Your task to perform on an android device: turn on priority inbox in the gmail app Image 0: 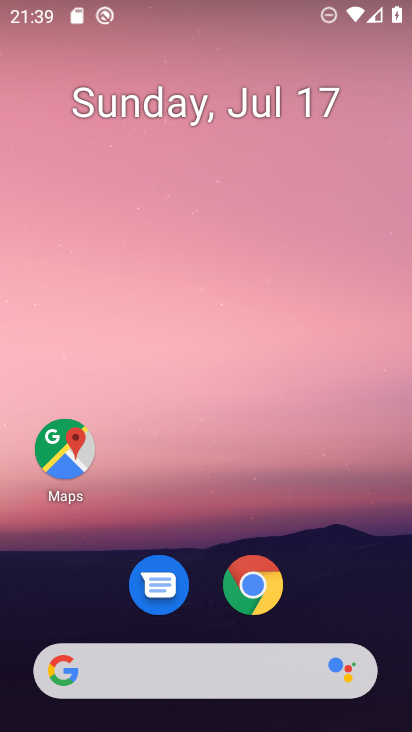
Step 0: press home button
Your task to perform on an android device: turn on priority inbox in the gmail app Image 1: 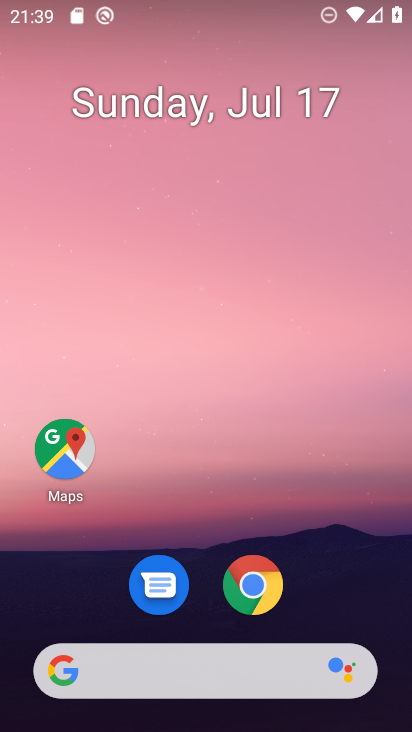
Step 1: drag from (223, 670) to (305, 85)
Your task to perform on an android device: turn on priority inbox in the gmail app Image 2: 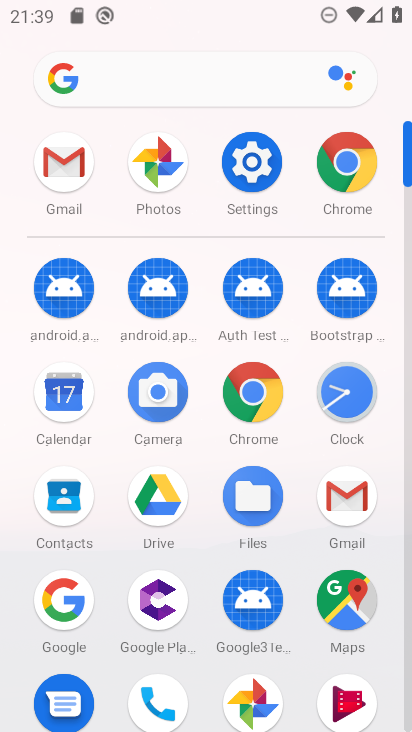
Step 2: click (61, 174)
Your task to perform on an android device: turn on priority inbox in the gmail app Image 3: 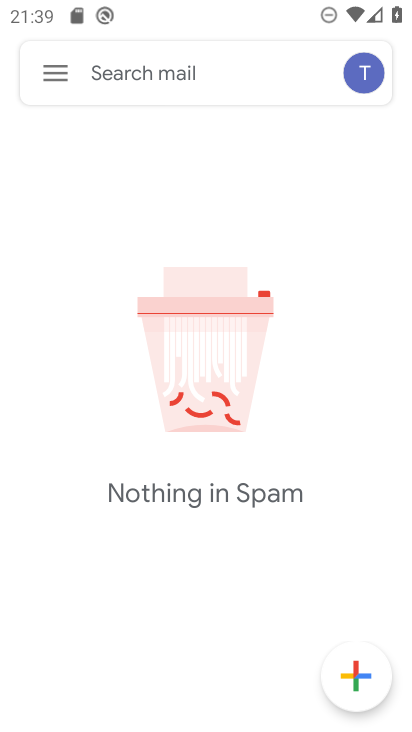
Step 3: click (51, 75)
Your task to perform on an android device: turn on priority inbox in the gmail app Image 4: 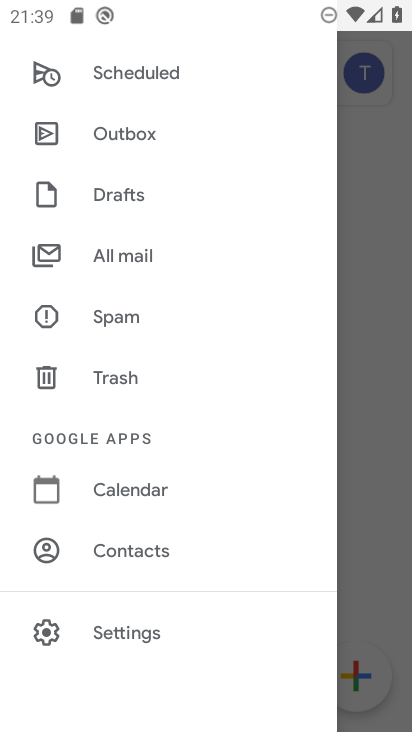
Step 4: click (130, 635)
Your task to perform on an android device: turn on priority inbox in the gmail app Image 5: 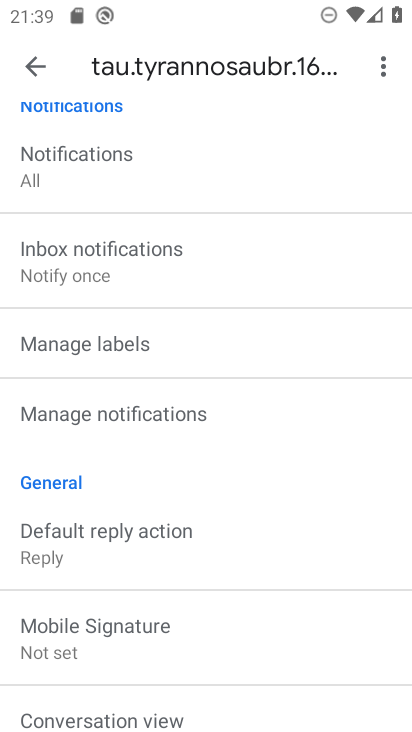
Step 5: drag from (266, 125) to (288, 632)
Your task to perform on an android device: turn on priority inbox in the gmail app Image 6: 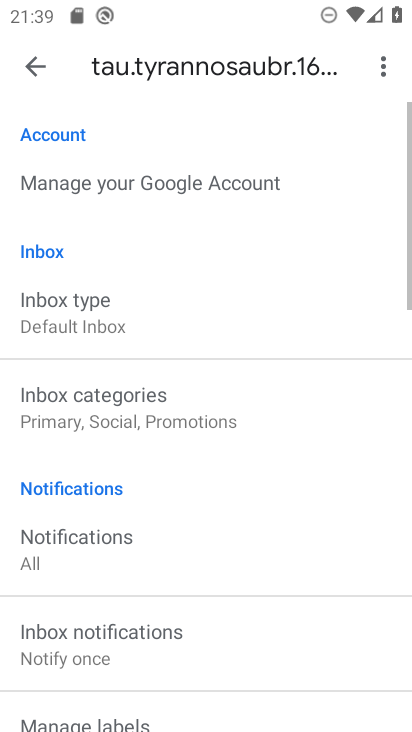
Step 6: click (99, 316)
Your task to perform on an android device: turn on priority inbox in the gmail app Image 7: 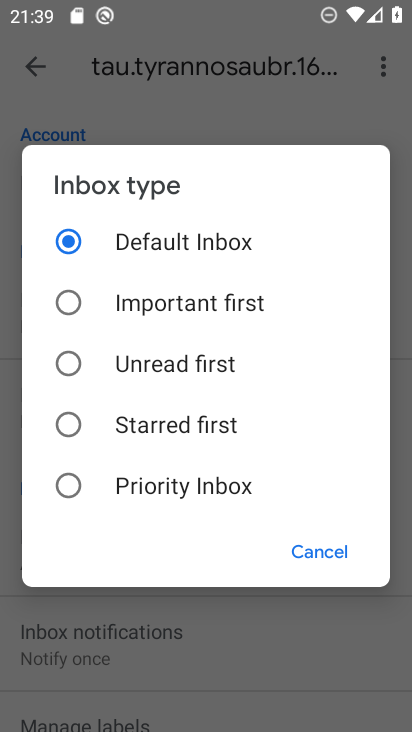
Step 7: click (66, 489)
Your task to perform on an android device: turn on priority inbox in the gmail app Image 8: 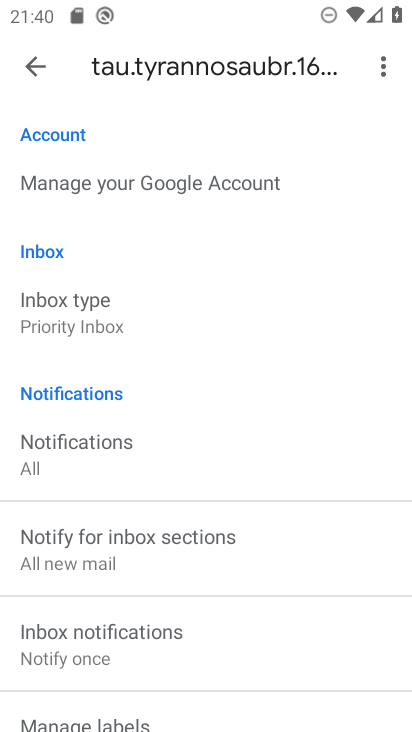
Step 8: press home button
Your task to perform on an android device: turn on priority inbox in the gmail app Image 9: 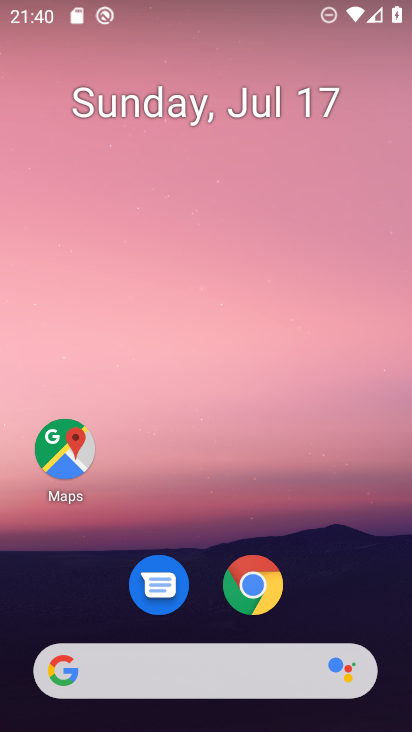
Step 9: drag from (184, 662) to (274, 36)
Your task to perform on an android device: turn on priority inbox in the gmail app Image 10: 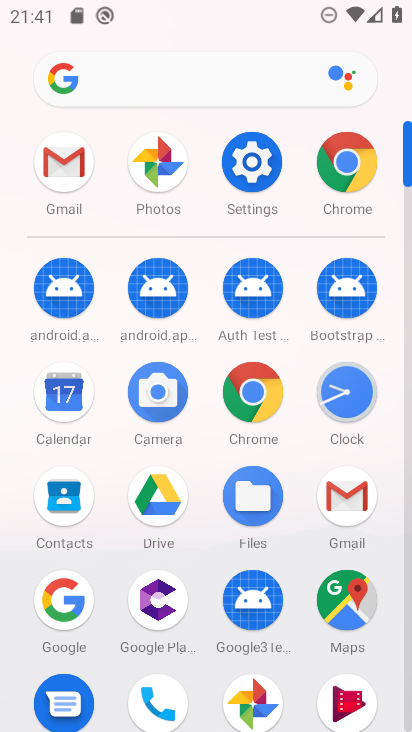
Step 10: click (69, 165)
Your task to perform on an android device: turn on priority inbox in the gmail app Image 11: 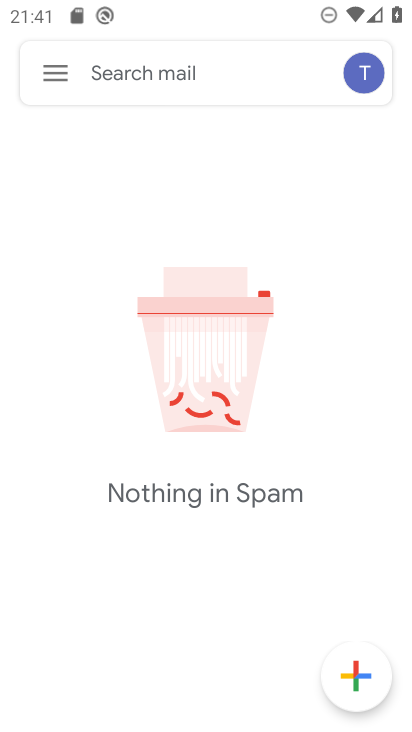
Step 11: click (61, 68)
Your task to perform on an android device: turn on priority inbox in the gmail app Image 12: 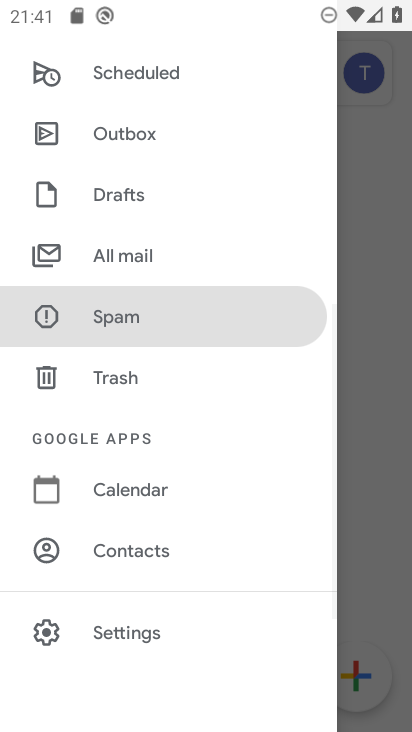
Step 12: click (132, 627)
Your task to perform on an android device: turn on priority inbox in the gmail app Image 13: 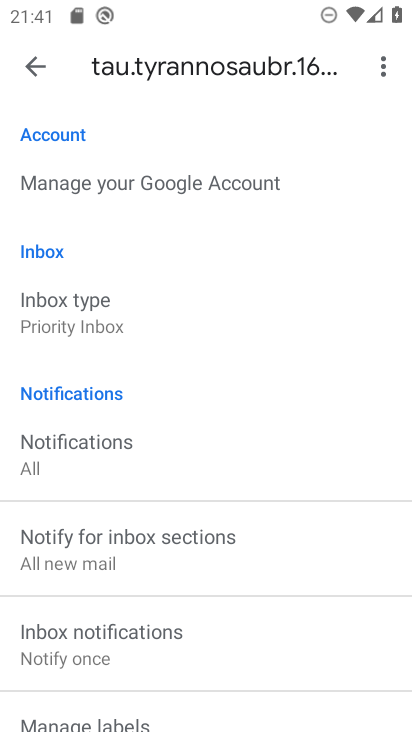
Step 13: click (110, 310)
Your task to perform on an android device: turn on priority inbox in the gmail app Image 14: 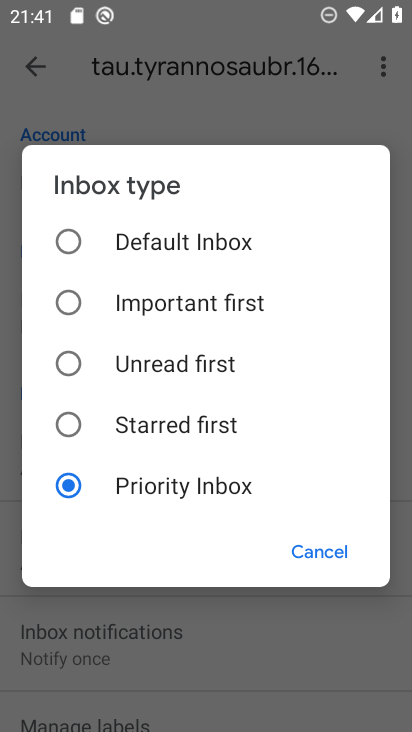
Step 14: task complete